Your task to perform on an android device: Do I have any events this weekend? Image 0: 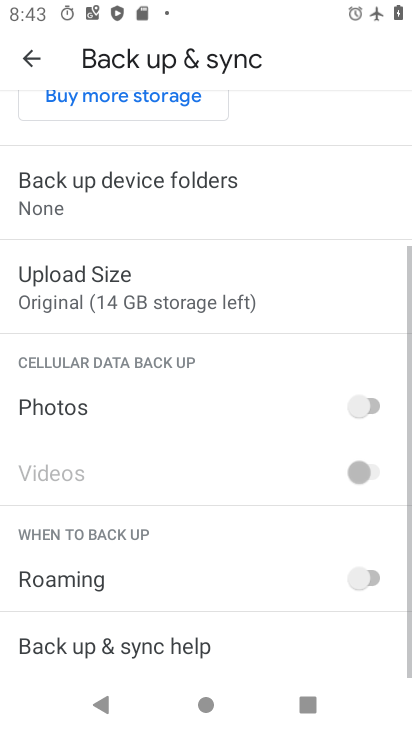
Step 0: press home button
Your task to perform on an android device: Do I have any events this weekend? Image 1: 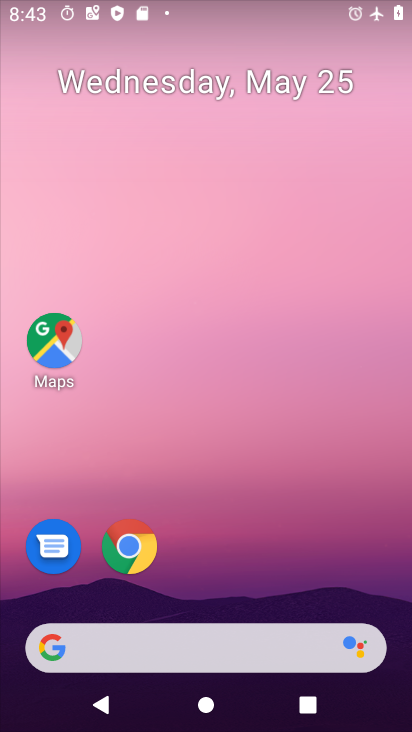
Step 1: drag from (221, 603) to (194, 217)
Your task to perform on an android device: Do I have any events this weekend? Image 2: 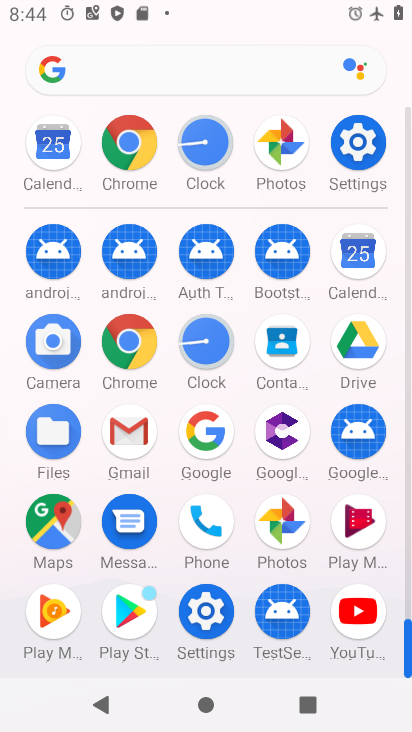
Step 2: click (352, 287)
Your task to perform on an android device: Do I have any events this weekend? Image 3: 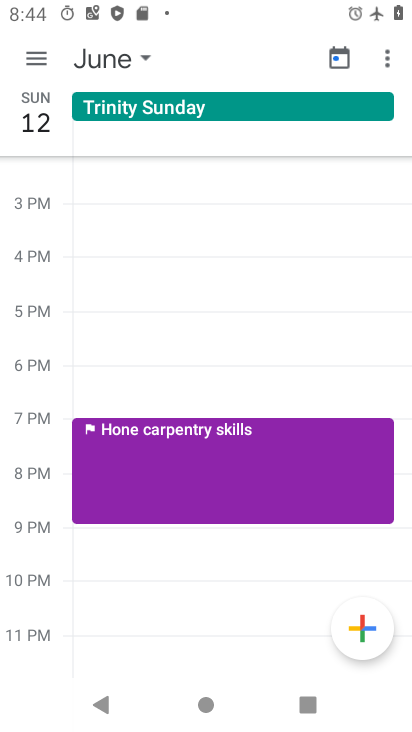
Step 3: click (42, 58)
Your task to perform on an android device: Do I have any events this weekend? Image 4: 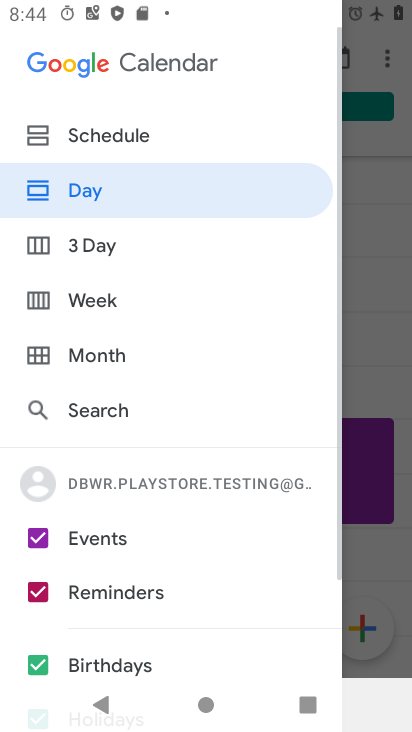
Step 4: click (89, 309)
Your task to perform on an android device: Do I have any events this weekend? Image 5: 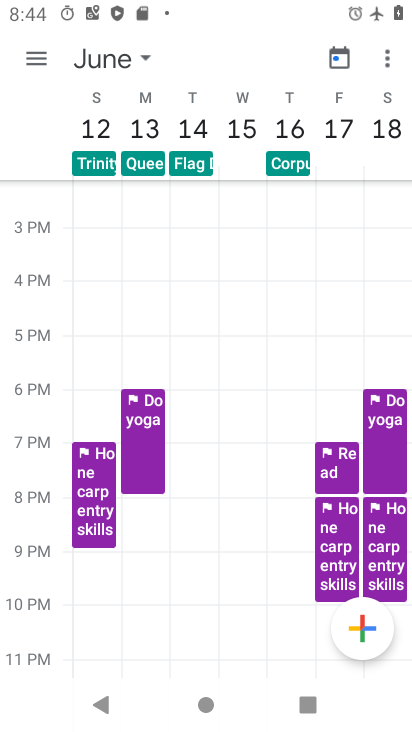
Step 5: click (109, 70)
Your task to perform on an android device: Do I have any events this weekend? Image 6: 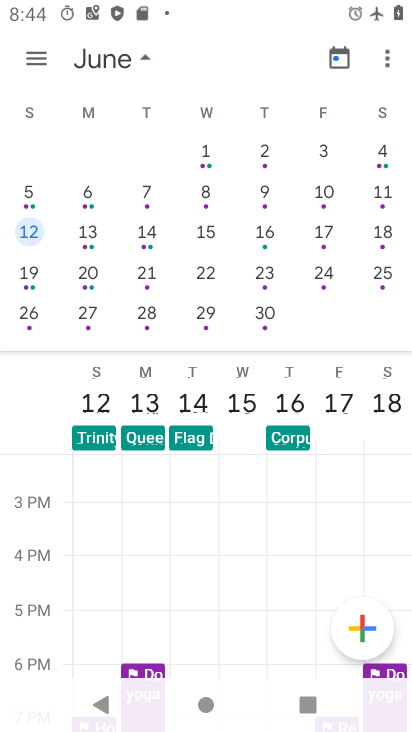
Step 6: drag from (47, 257) to (374, 273)
Your task to perform on an android device: Do I have any events this weekend? Image 7: 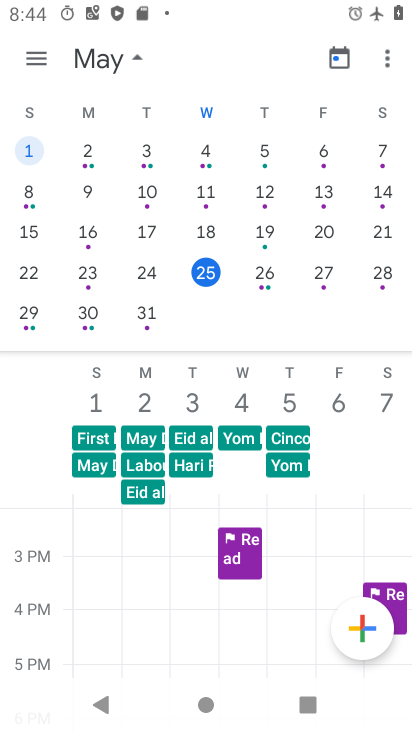
Step 7: click (27, 276)
Your task to perform on an android device: Do I have any events this weekend? Image 8: 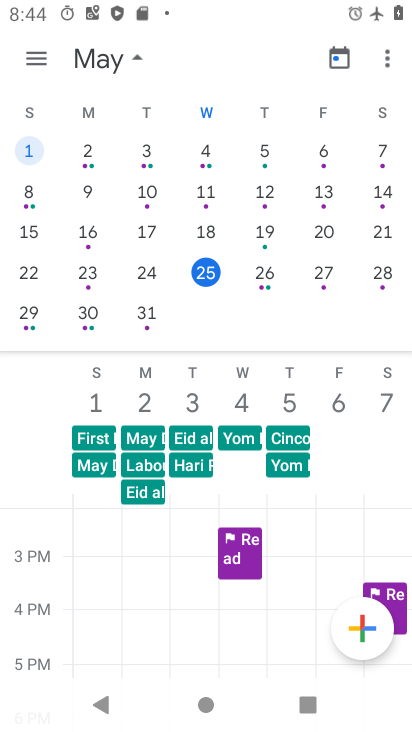
Step 8: click (27, 276)
Your task to perform on an android device: Do I have any events this weekend? Image 9: 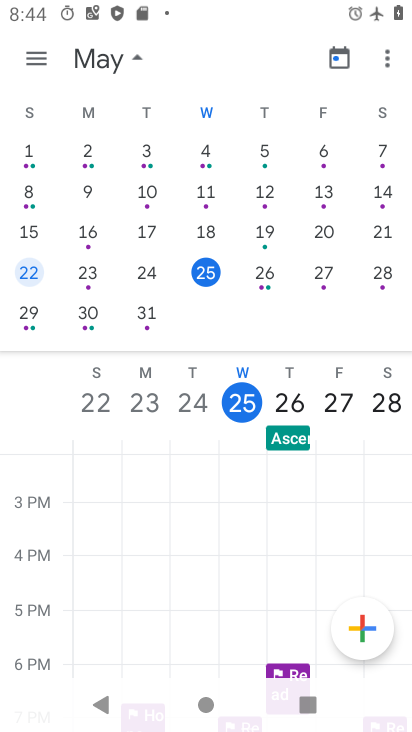
Step 9: task complete